Your task to perform on an android device: open a bookmark in the chrome app Image 0: 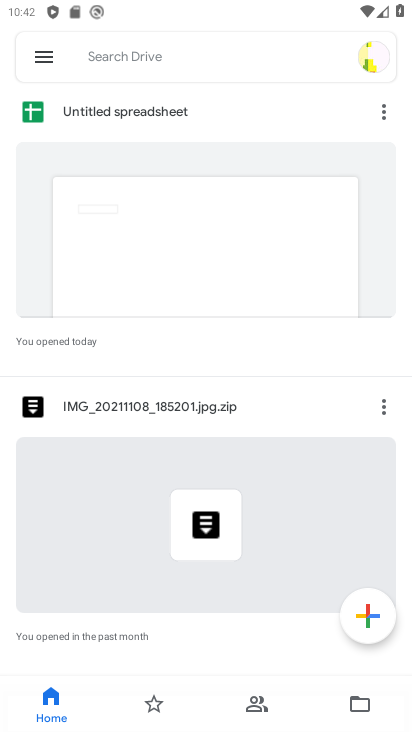
Step 0: press home button
Your task to perform on an android device: open a bookmark in the chrome app Image 1: 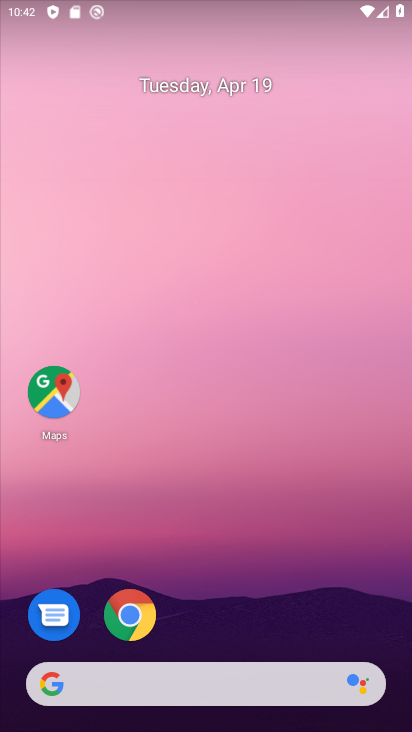
Step 1: click (131, 609)
Your task to perform on an android device: open a bookmark in the chrome app Image 2: 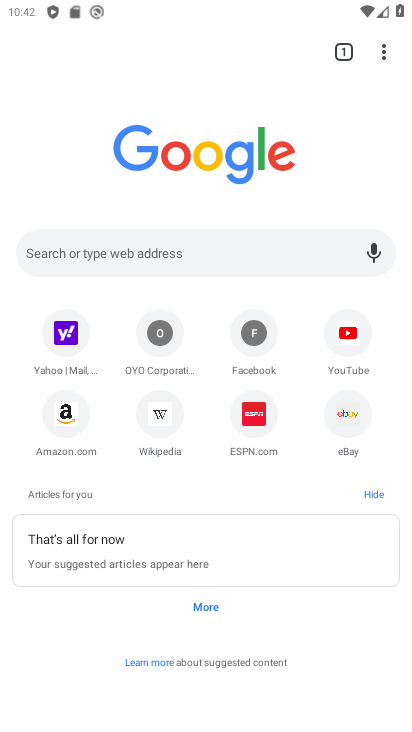
Step 2: click (379, 50)
Your task to perform on an android device: open a bookmark in the chrome app Image 3: 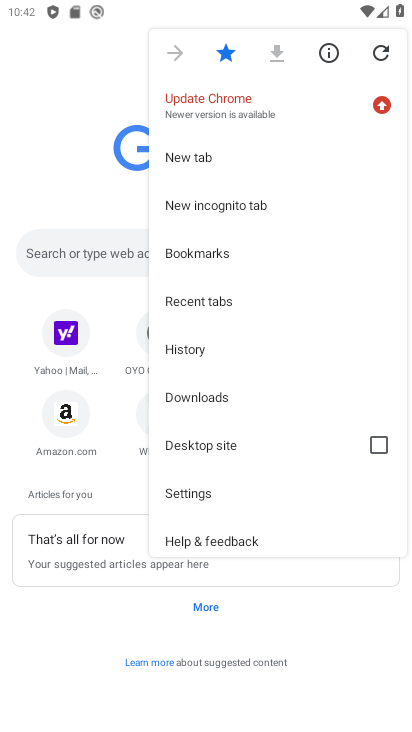
Step 3: click (237, 261)
Your task to perform on an android device: open a bookmark in the chrome app Image 4: 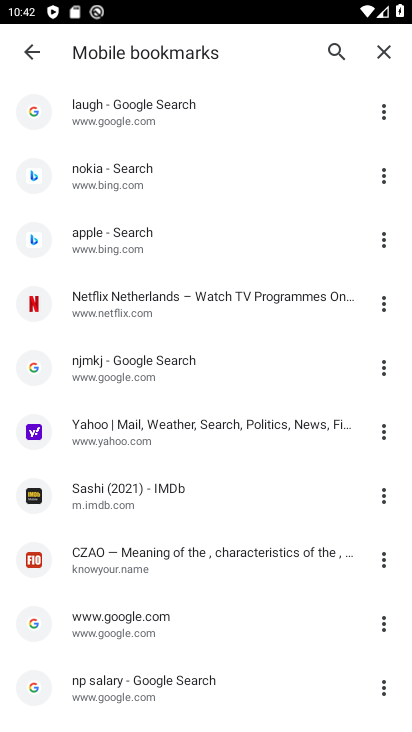
Step 4: click (141, 309)
Your task to perform on an android device: open a bookmark in the chrome app Image 5: 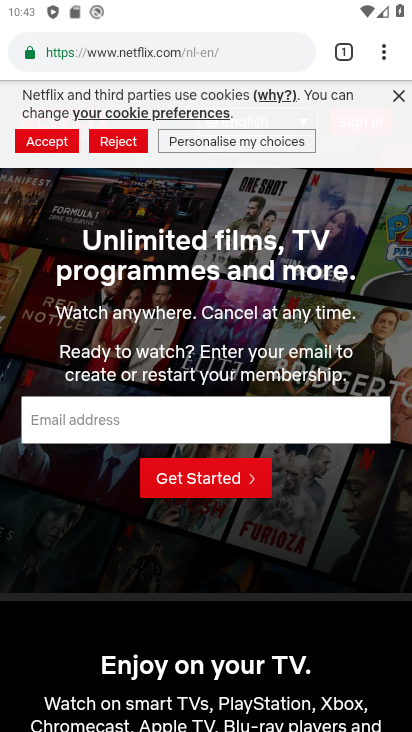
Step 5: task complete